Your task to perform on an android device: Open the phone app and click the voicemail tab. Image 0: 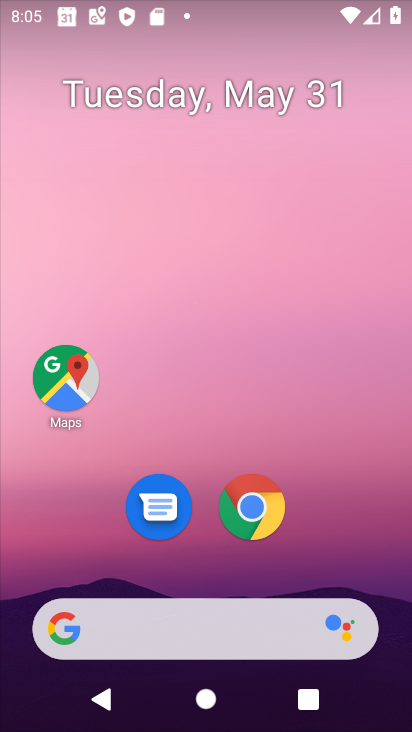
Step 0: drag from (321, 505) to (249, 79)
Your task to perform on an android device: Open the phone app and click the voicemail tab. Image 1: 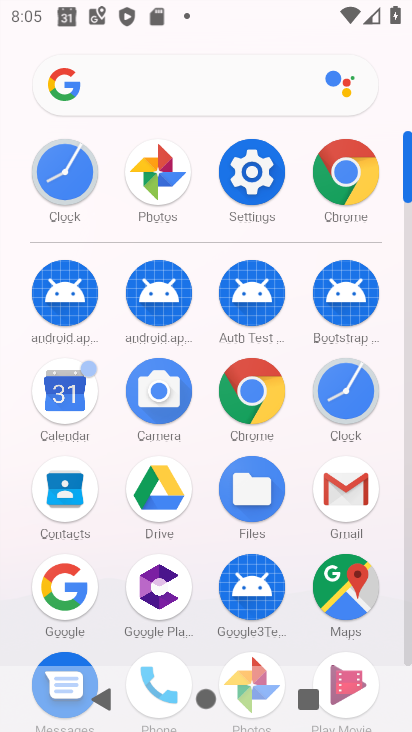
Step 1: drag from (201, 521) to (203, 216)
Your task to perform on an android device: Open the phone app and click the voicemail tab. Image 2: 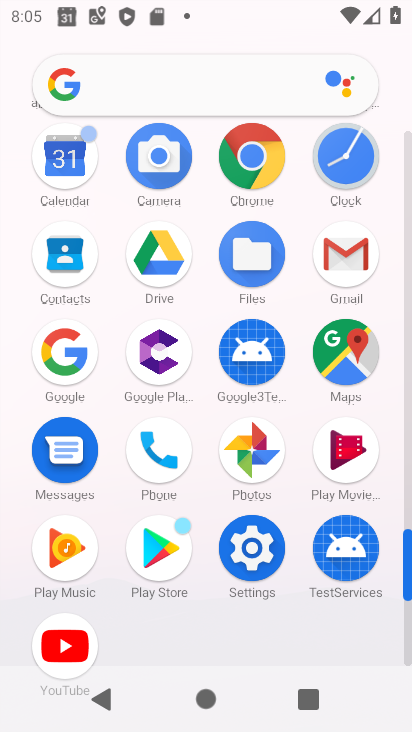
Step 2: click (162, 462)
Your task to perform on an android device: Open the phone app and click the voicemail tab. Image 3: 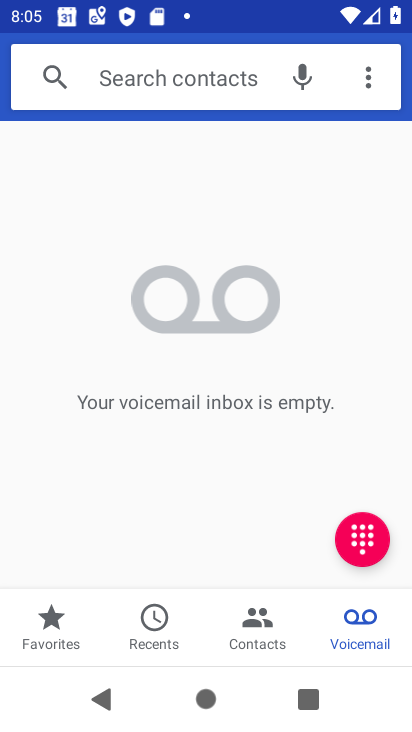
Step 3: click (356, 638)
Your task to perform on an android device: Open the phone app and click the voicemail tab. Image 4: 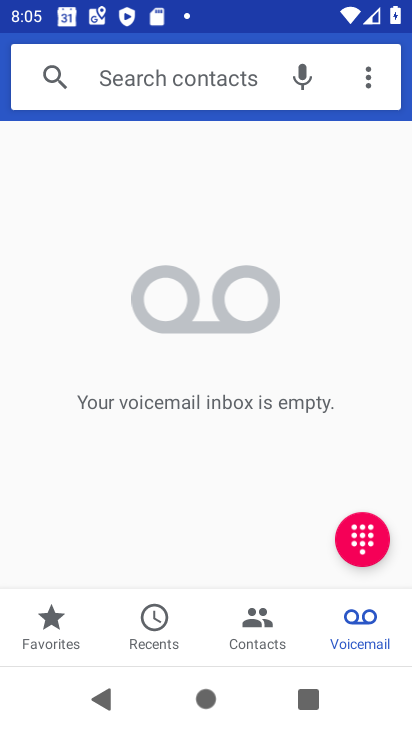
Step 4: task complete